Your task to perform on an android device: set the timer Image 0: 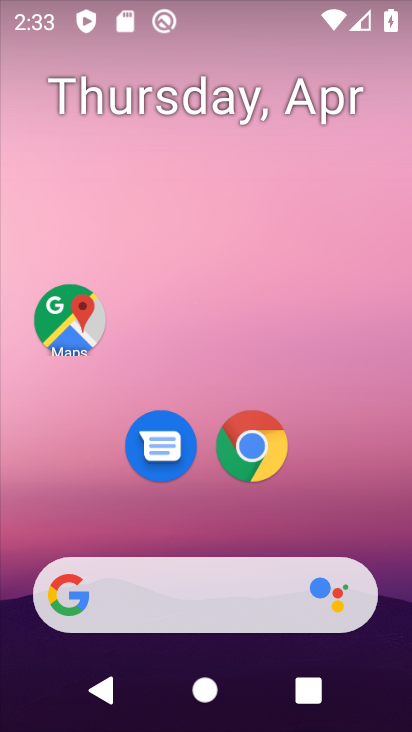
Step 0: drag from (267, 638) to (309, 95)
Your task to perform on an android device: set the timer Image 1: 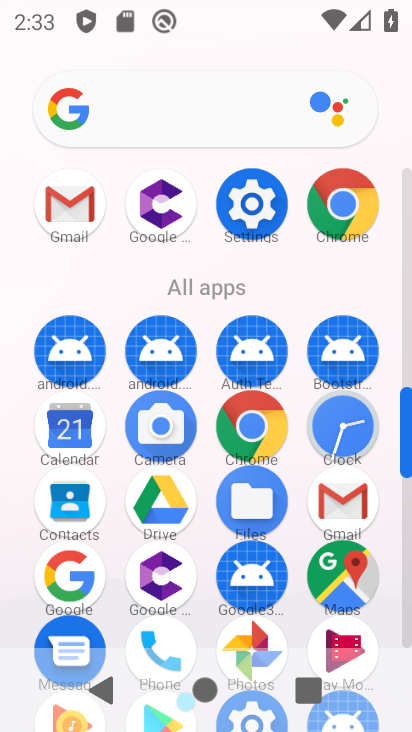
Step 1: click (336, 419)
Your task to perform on an android device: set the timer Image 2: 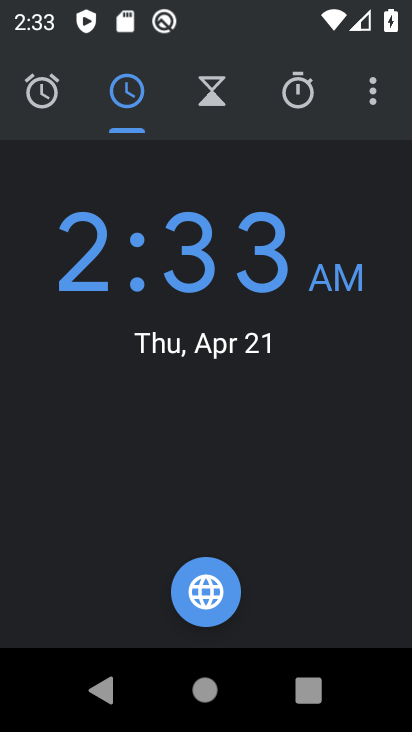
Step 2: click (208, 109)
Your task to perform on an android device: set the timer Image 3: 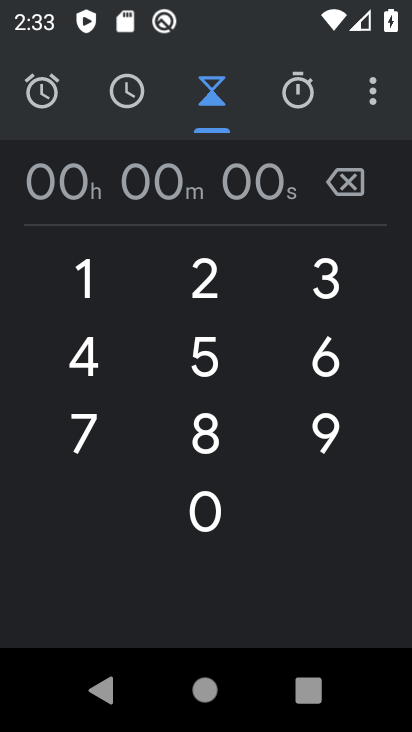
Step 3: click (212, 286)
Your task to perform on an android device: set the timer Image 4: 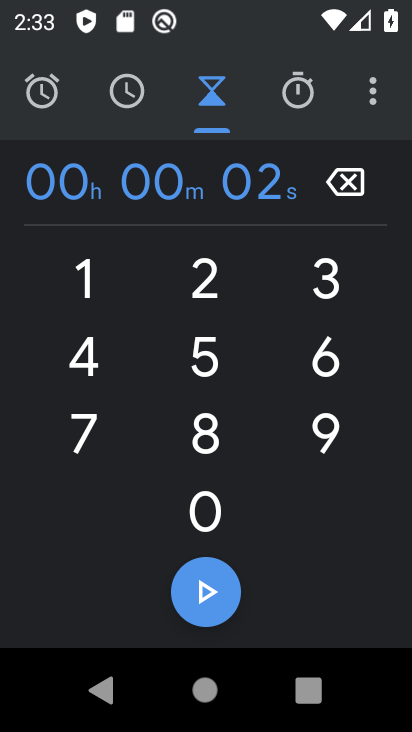
Step 4: click (208, 361)
Your task to perform on an android device: set the timer Image 5: 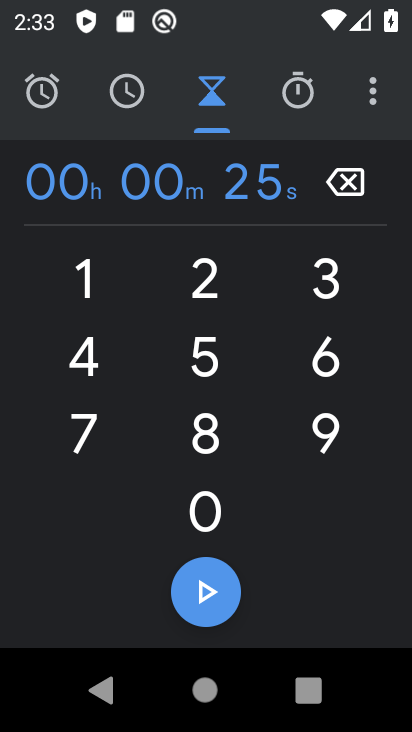
Step 5: click (94, 288)
Your task to perform on an android device: set the timer Image 6: 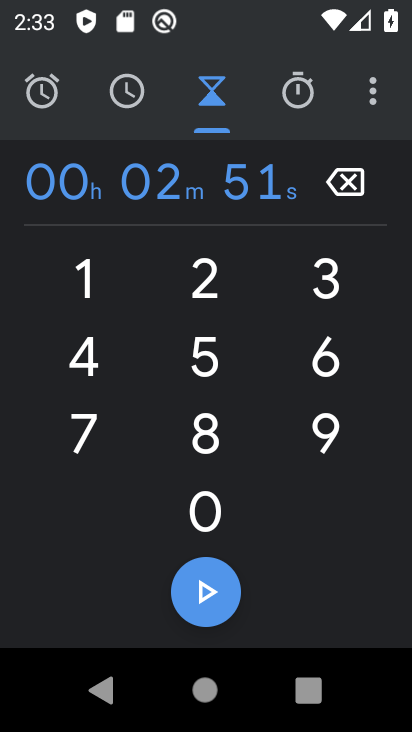
Step 6: click (205, 419)
Your task to perform on an android device: set the timer Image 7: 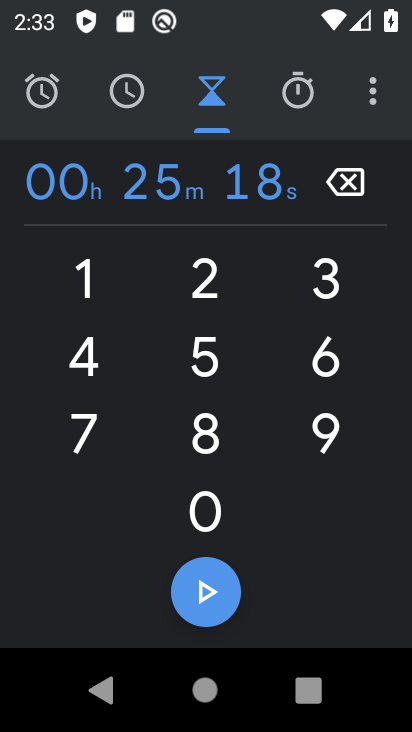
Step 7: click (321, 293)
Your task to perform on an android device: set the timer Image 8: 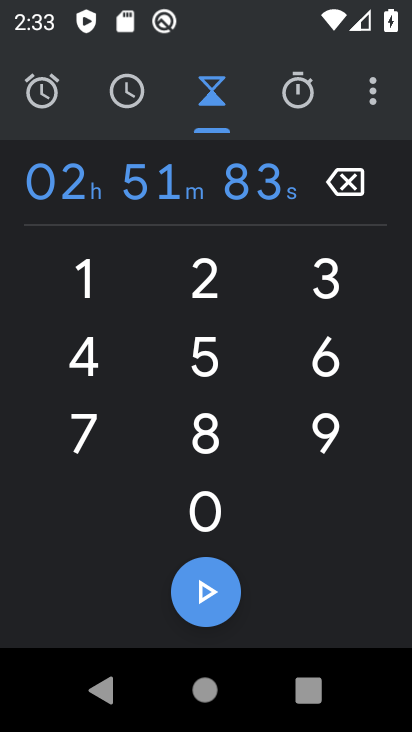
Step 8: task complete